Your task to perform on an android device: set an alarm Image 0: 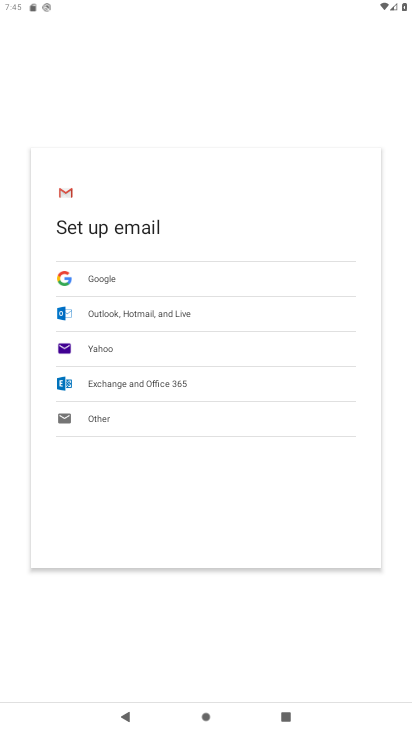
Step 0: press home button
Your task to perform on an android device: set an alarm Image 1: 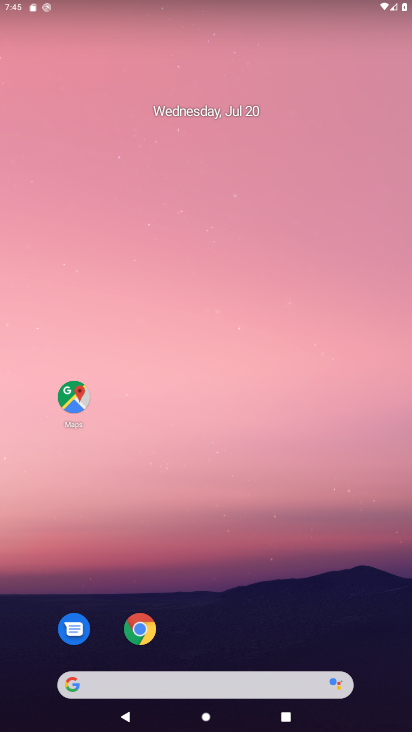
Step 1: drag from (306, 638) to (271, 241)
Your task to perform on an android device: set an alarm Image 2: 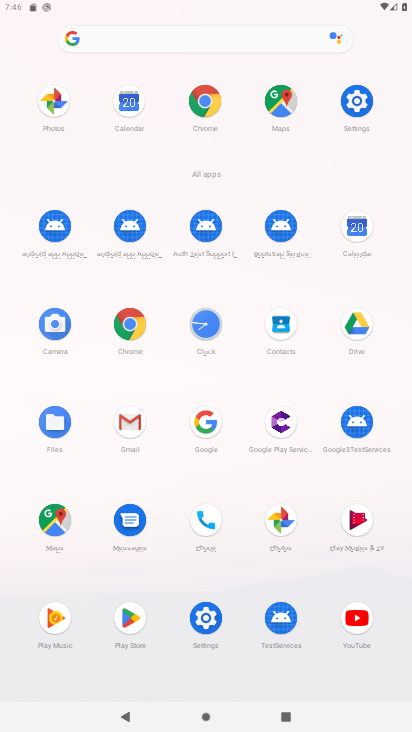
Step 2: click (194, 336)
Your task to perform on an android device: set an alarm Image 3: 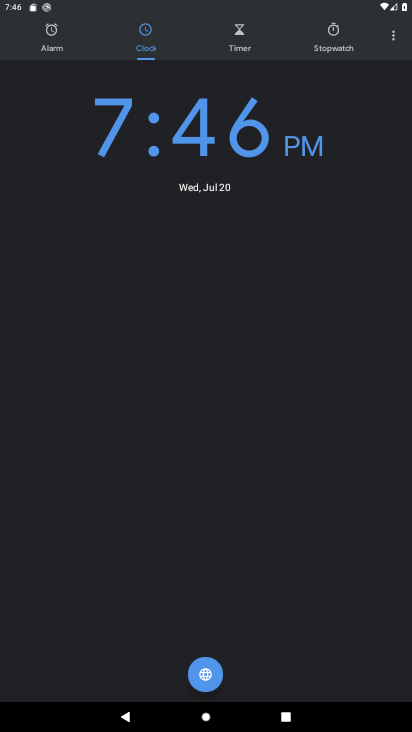
Step 3: click (54, 41)
Your task to perform on an android device: set an alarm Image 4: 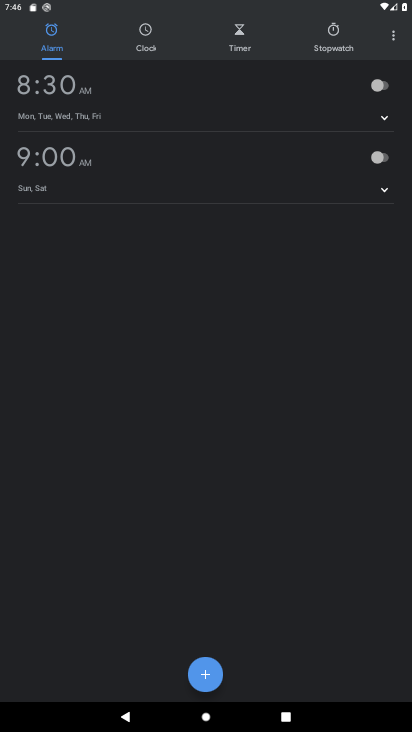
Step 4: click (390, 157)
Your task to perform on an android device: set an alarm Image 5: 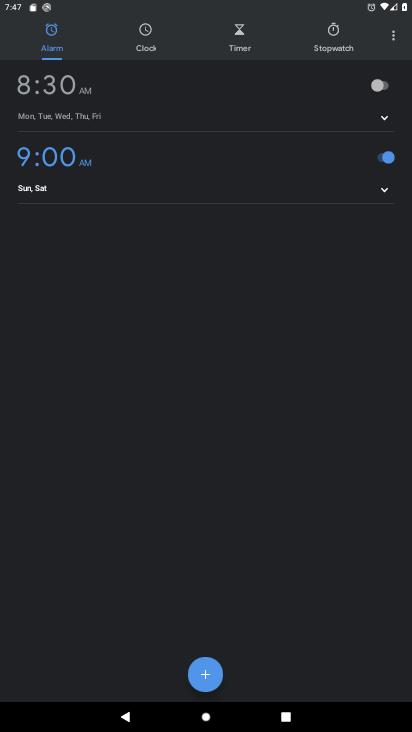
Step 5: task complete